Your task to perform on an android device: Is it going to rain tomorrow? Image 0: 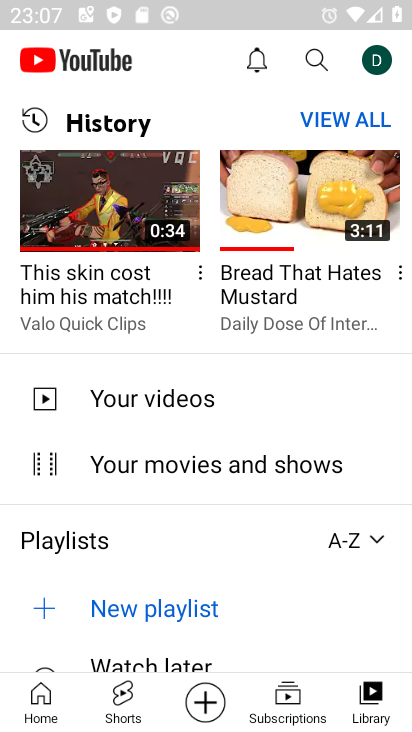
Step 0: press back button
Your task to perform on an android device: Is it going to rain tomorrow? Image 1: 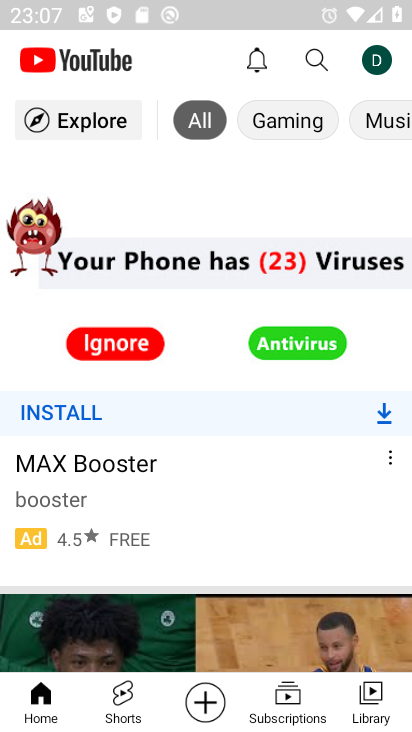
Step 1: press back button
Your task to perform on an android device: Is it going to rain tomorrow? Image 2: 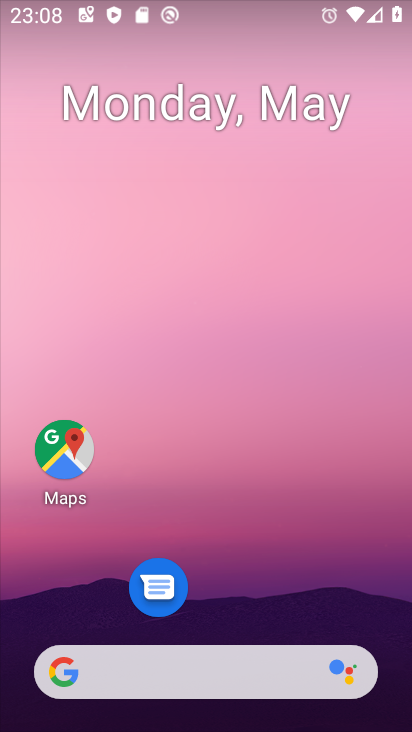
Step 2: click (242, 672)
Your task to perform on an android device: Is it going to rain tomorrow? Image 3: 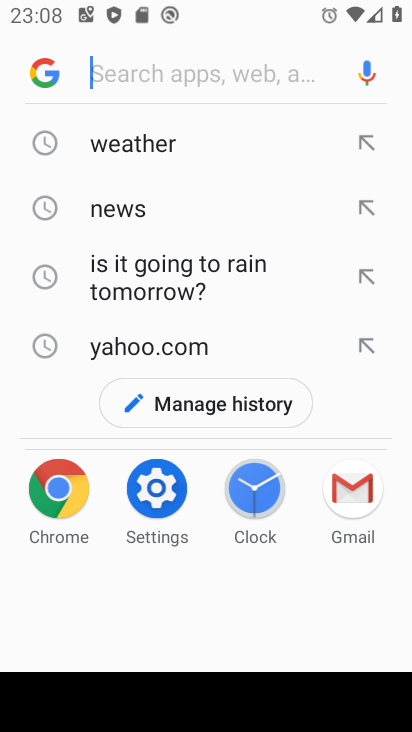
Step 3: click (161, 116)
Your task to perform on an android device: Is it going to rain tomorrow? Image 4: 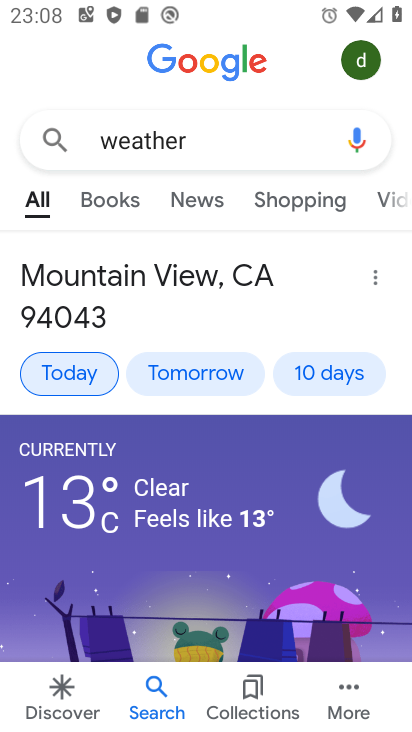
Step 4: click (195, 371)
Your task to perform on an android device: Is it going to rain tomorrow? Image 5: 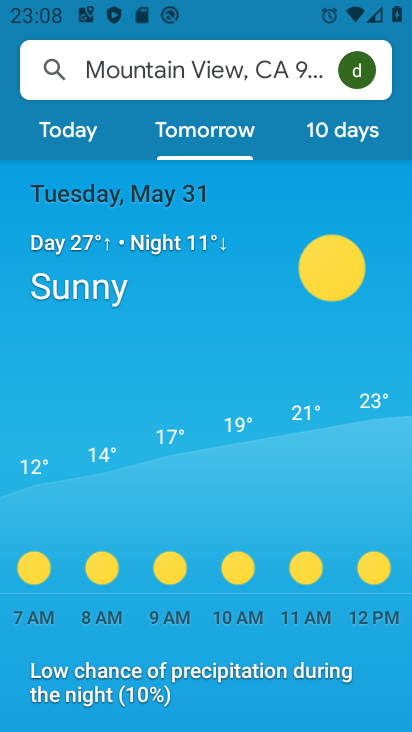
Step 5: task complete